Your task to perform on an android device: Open the files app Image 0: 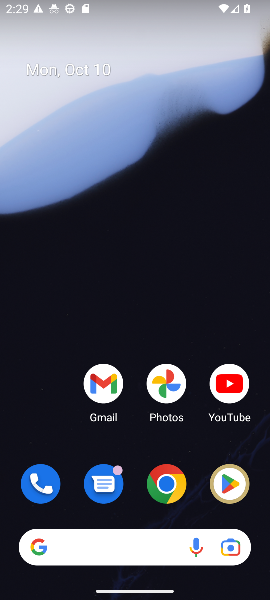
Step 0: drag from (181, 349) to (146, 0)
Your task to perform on an android device: Open the files app Image 1: 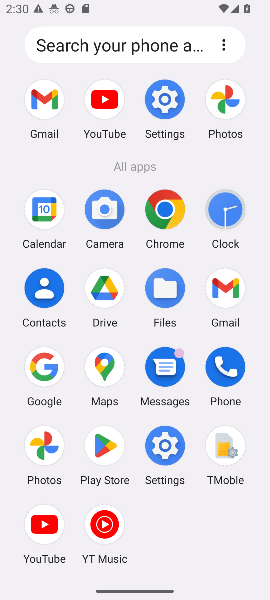
Step 1: click (170, 293)
Your task to perform on an android device: Open the files app Image 2: 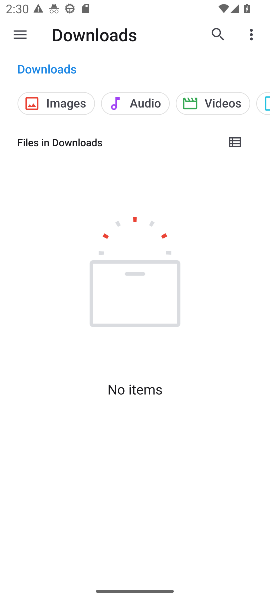
Step 2: task complete